Your task to perform on an android device: Go to ESPN.com Image 0: 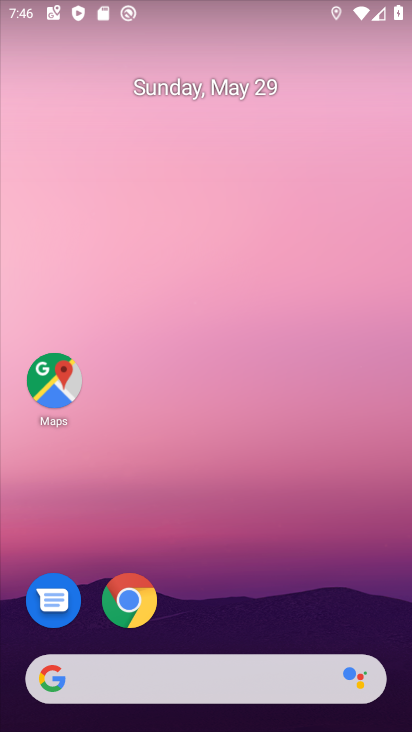
Step 0: click (135, 604)
Your task to perform on an android device: Go to ESPN.com Image 1: 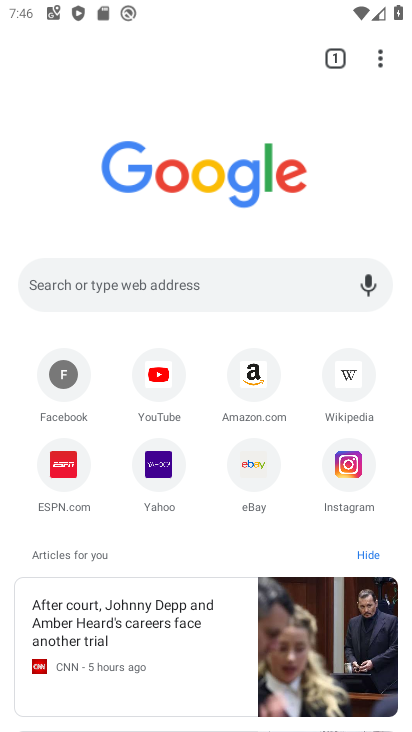
Step 1: click (63, 466)
Your task to perform on an android device: Go to ESPN.com Image 2: 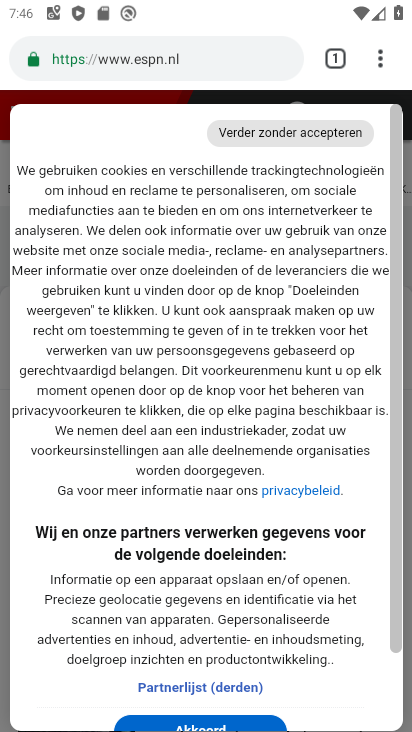
Step 2: task complete